Your task to perform on an android device: read, delete, or share a saved page in the chrome app Image 0: 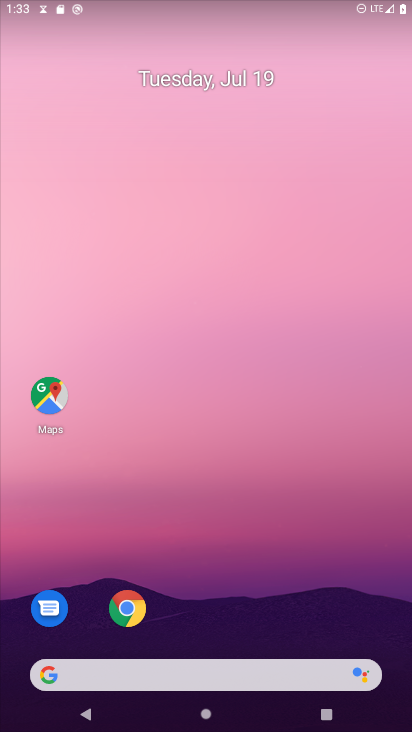
Step 0: drag from (193, 666) to (268, 26)
Your task to perform on an android device: read, delete, or share a saved page in the chrome app Image 1: 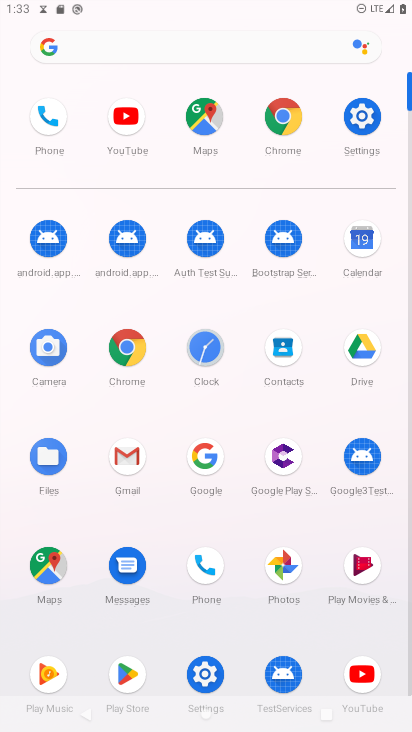
Step 1: click (131, 360)
Your task to perform on an android device: read, delete, or share a saved page in the chrome app Image 2: 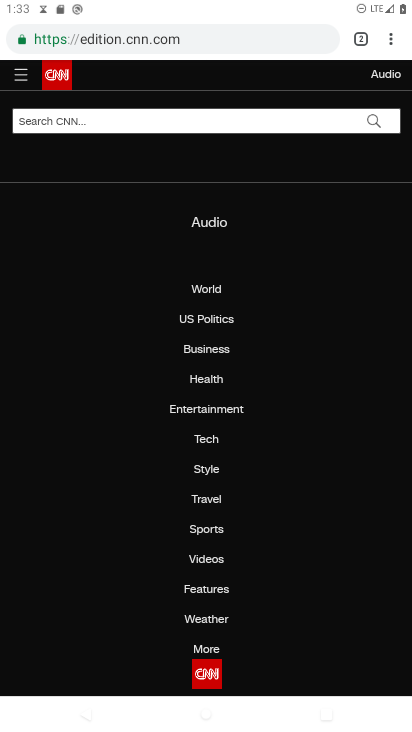
Step 2: task complete